Your task to perform on an android device: Search for Italian restaurants on Maps Image 0: 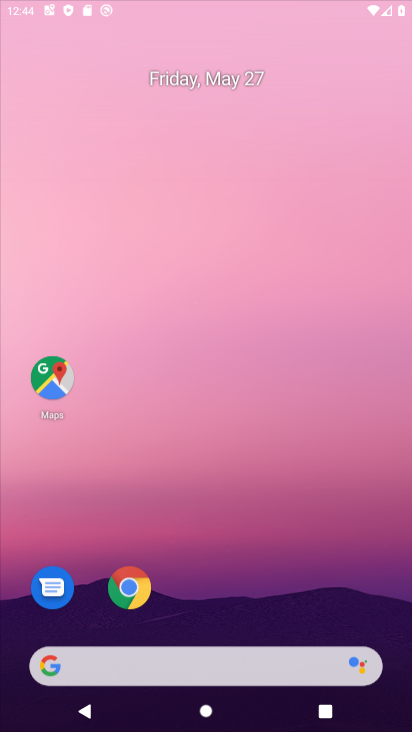
Step 0: click (211, 64)
Your task to perform on an android device: Search for Italian restaurants on Maps Image 1: 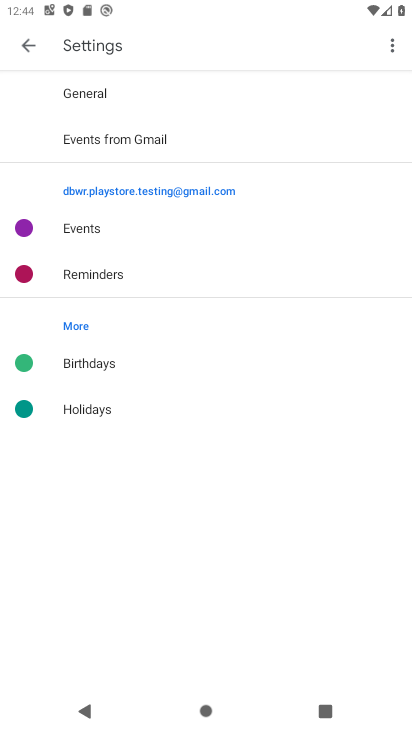
Step 1: press home button
Your task to perform on an android device: Search for Italian restaurants on Maps Image 2: 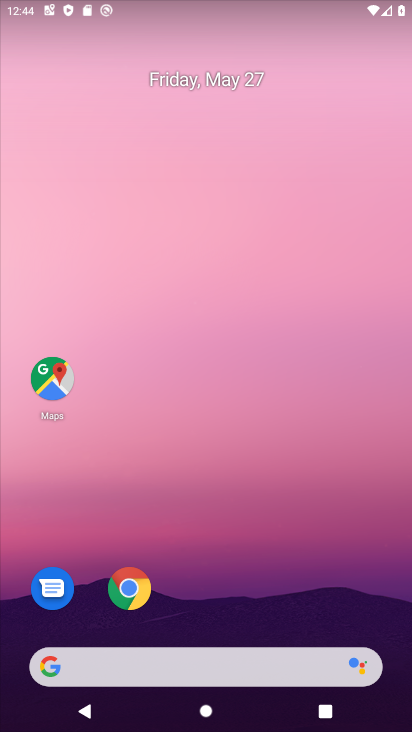
Step 2: click (41, 369)
Your task to perform on an android device: Search for Italian restaurants on Maps Image 3: 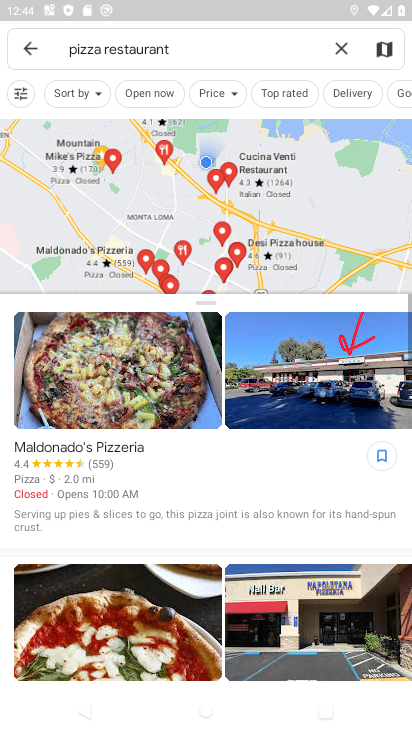
Step 3: click (343, 46)
Your task to perform on an android device: Search for Italian restaurants on Maps Image 4: 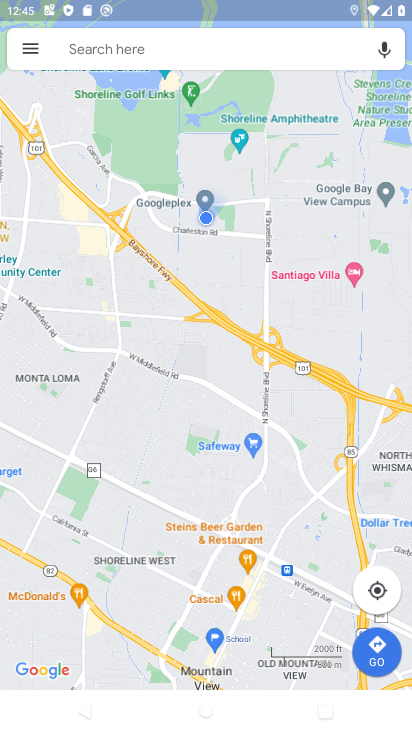
Step 4: click (167, 39)
Your task to perform on an android device: Search for Italian restaurants on Maps Image 5: 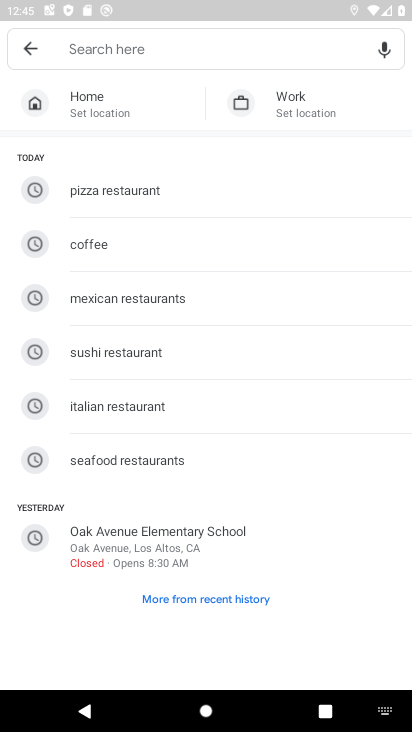
Step 5: click (103, 396)
Your task to perform on an android device: Search for Italian restaurants on Maps Image 6: 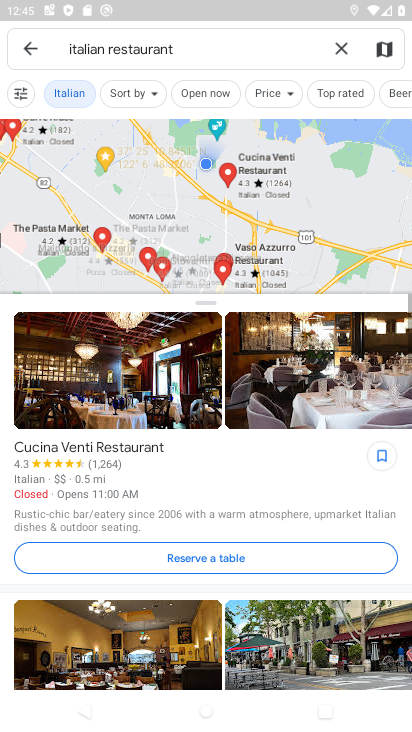
Step 6: task complete